Your task to perform on an android device: toggle improve location accuracy Image 0: 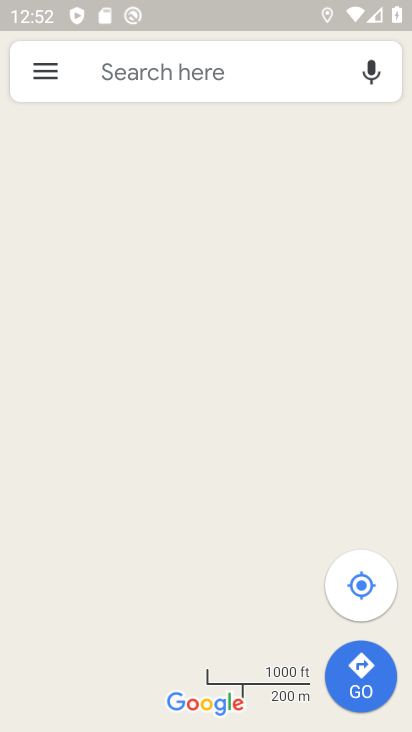
Step 0: press home button
Your task to perform on an android device: toggle improve location accuracy Image 1: 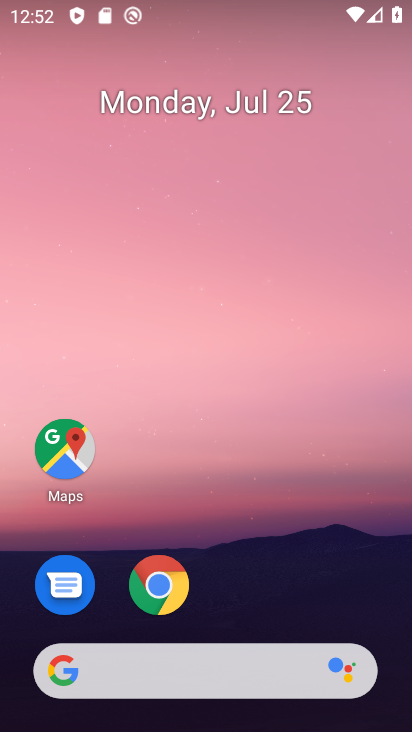
Step 1: drag from (257, 676) to (239, 79)
Your task to perform on an android device: toggle improve location accuracy Image 2: 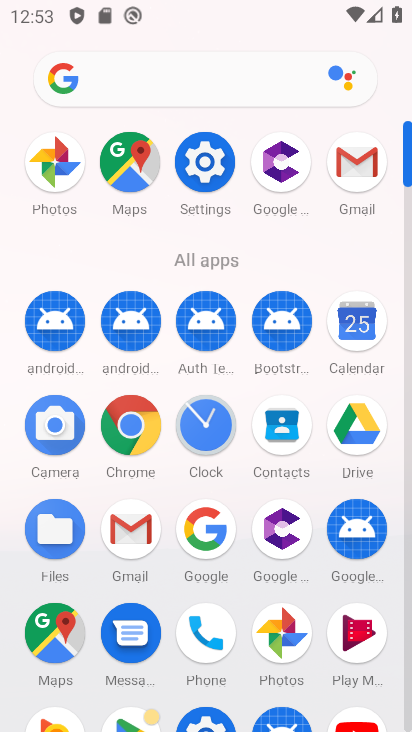
Step 2: click (208, 163)
Your task to perform on an android device: toggle improve location accuracy Image 3: 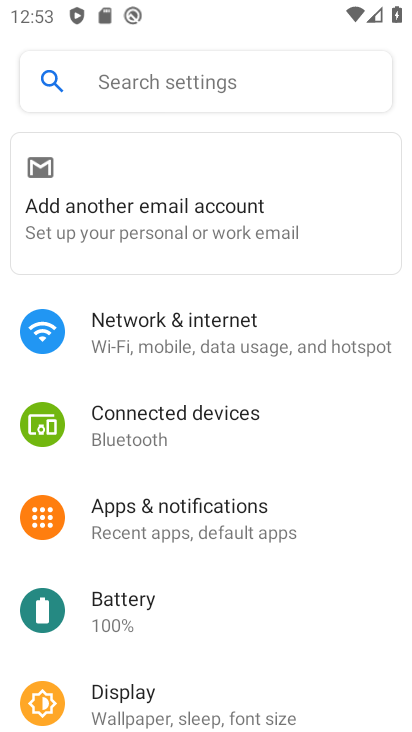
Step 3: drag from (164, 600) to (146, 159)
Your task to perform on an android device: toggle improve location accuracy Image 4: 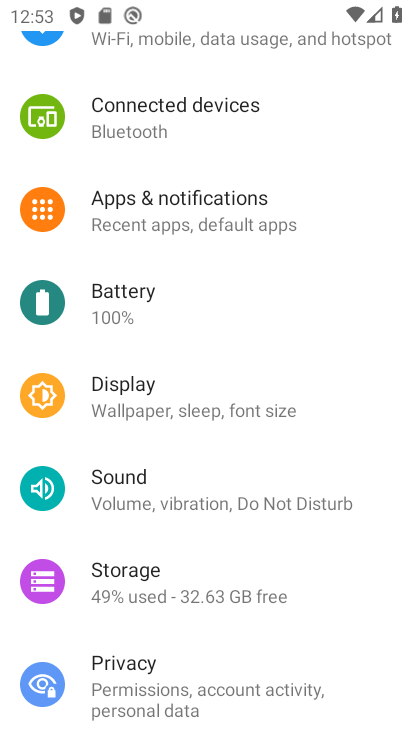
Step 4: drag from (143, 705) to (103, 266)
Your task to perform on an android device: toggle improve location accuracy Image 5: 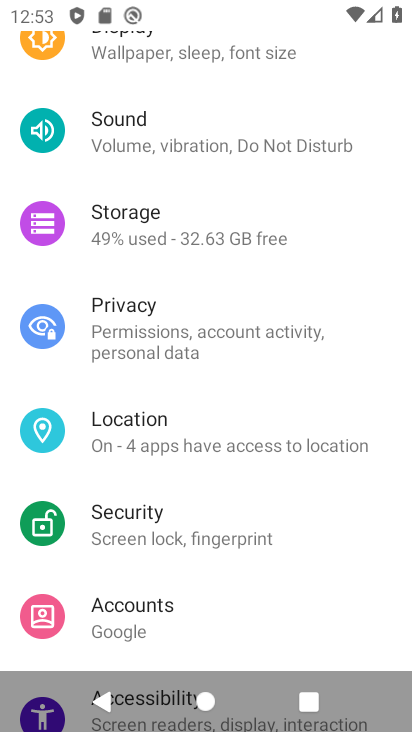
Step 5: click (121, 427)
Your task to perform on an android device: toggle improve location accuracy Image 6: 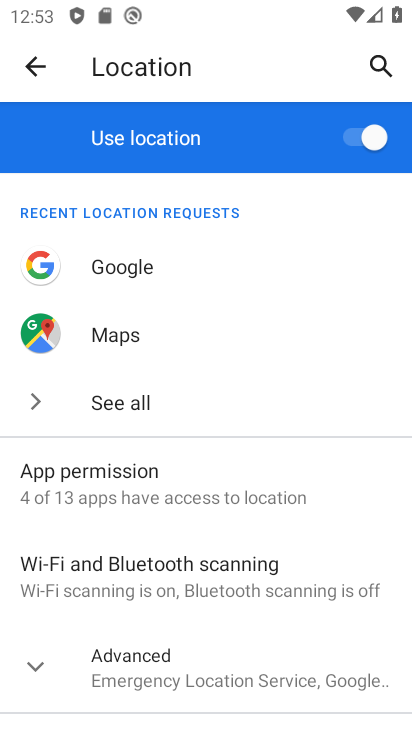
Step 6: click (136, 678)
Your task to perform on an android device: toggle improve location accuracy Image 7: 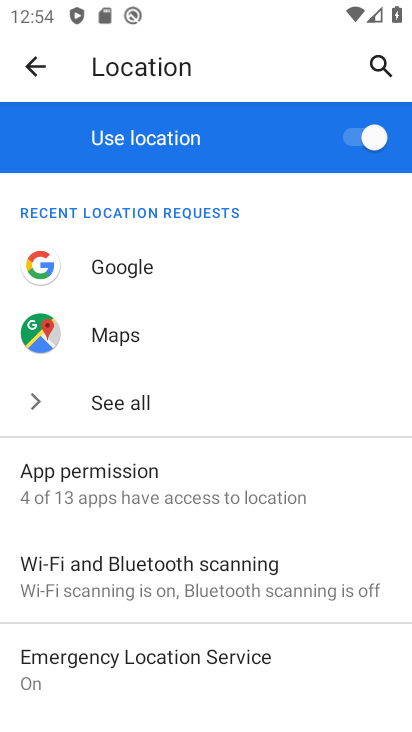
Step 7: drag from (235, 625) to (202, 255)
Your task to perform on an android device: toggle improve location accuracy Image 8: 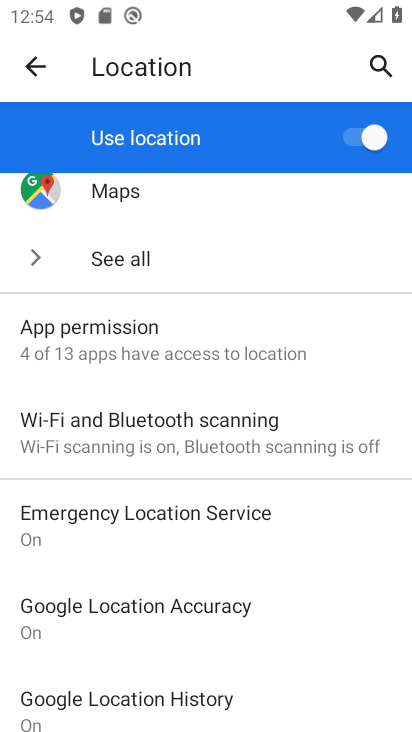
Step 8: click (189, 619)
Your task to perform on an android device: toggle improve location accuracy Image 9: 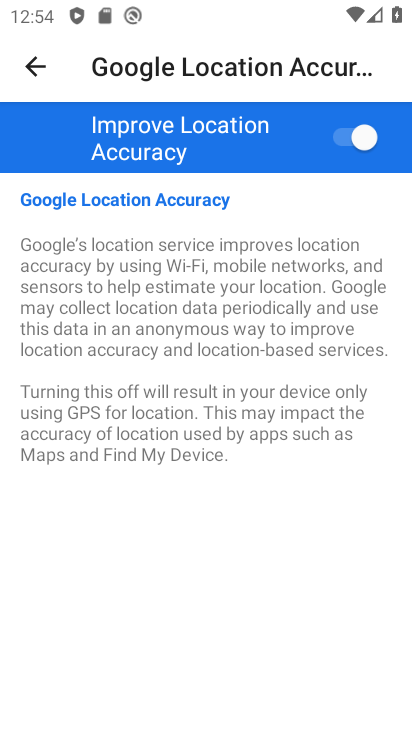
Step 9: click (345, 132)
Your task to perform on an android device: toggle improve location accuracy Image 10: 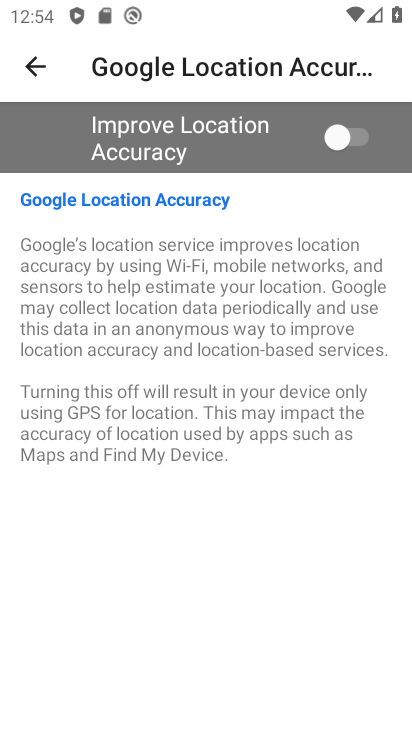
Step 10: task complete